Your task to perform on an android device: Open location settings Image 0: 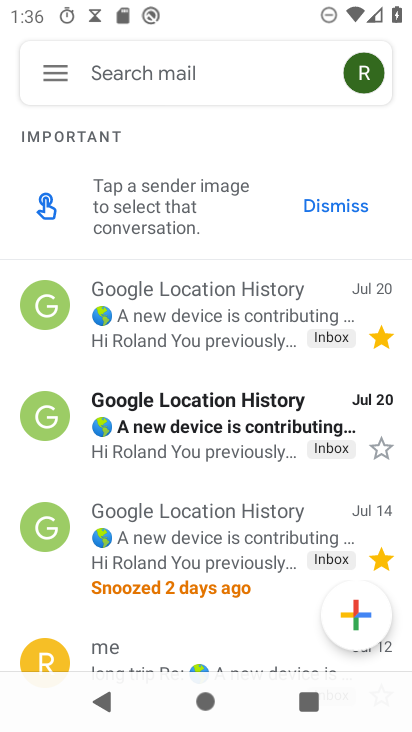
Step 0: press home button
Your task to perform on an android device: Open location settings Image 1: 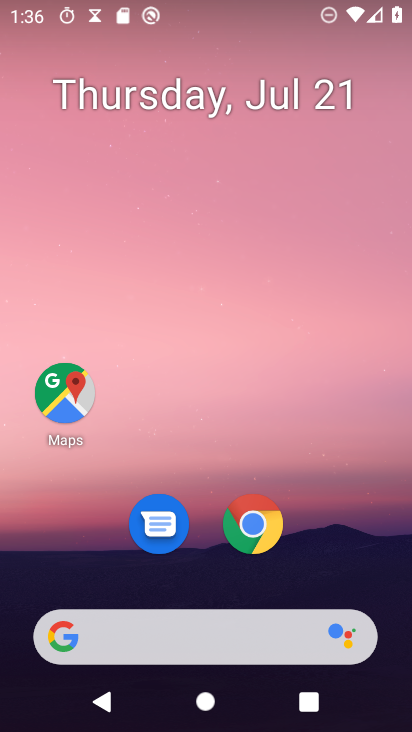
Step 1: drag from (226, 606) to (375, 129)
Your task to perform on an android device: Open location settings Image 2: 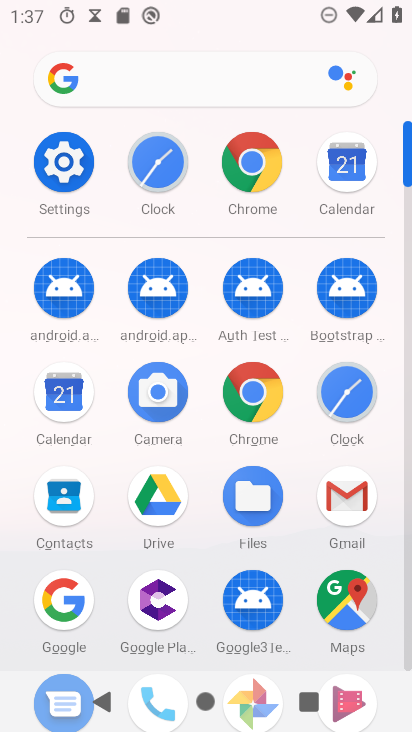
Step 2: click (67, 167)
Your task to perform on an android device: Open location settings Image 3: 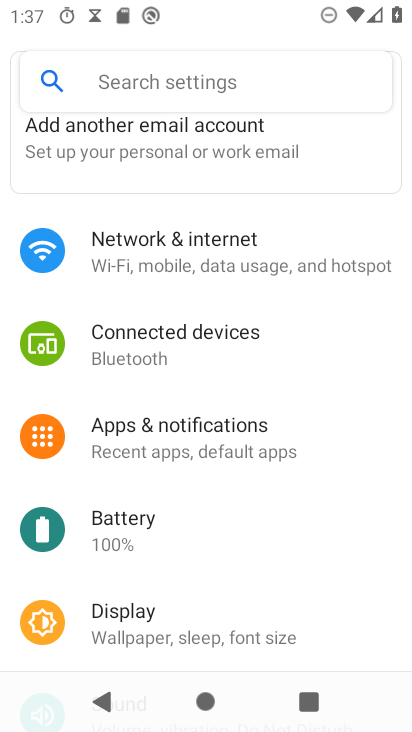
Step 3: drag from (285, 391) to (325, 154)
Your task to perform on an android device: Open location settings Image 4: 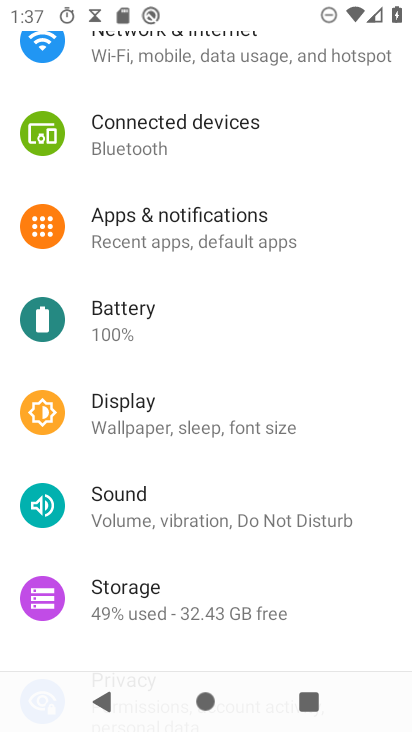
Step 4: drag from (220, 578) to (339, 152)
Your task to perform on an android device: Open location settings Image 5: 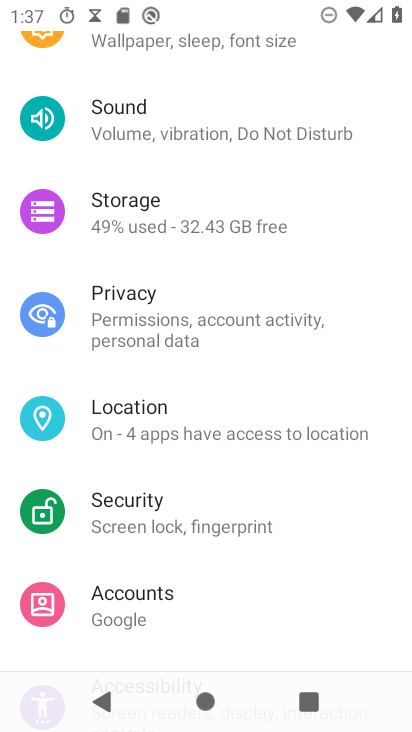
Step 5: click (180, 426)
Your task to perform on an android device: Open location settings Image 6: 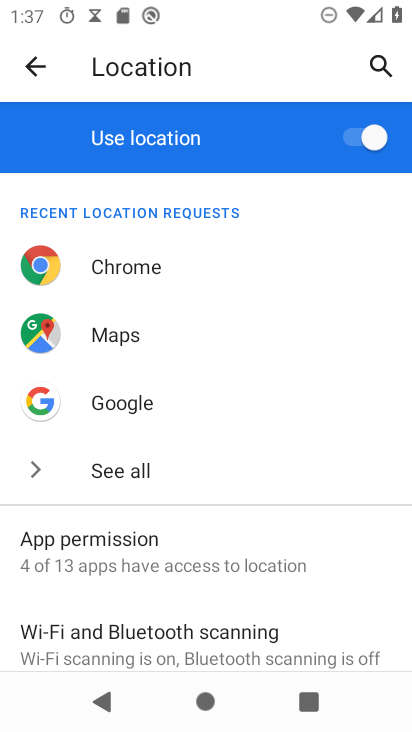
Step 6: task complete